Your task to perform on an android device: Open Google Chrome Image 0: 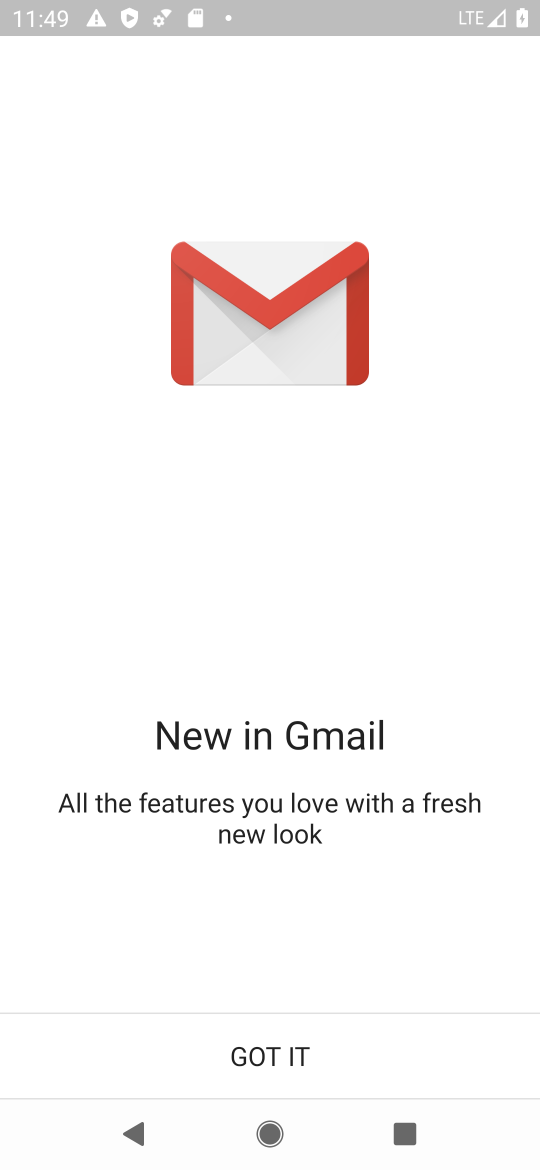
Step 0: press home button
Your task to perform on an android device: Open Google Chrome Image 1: 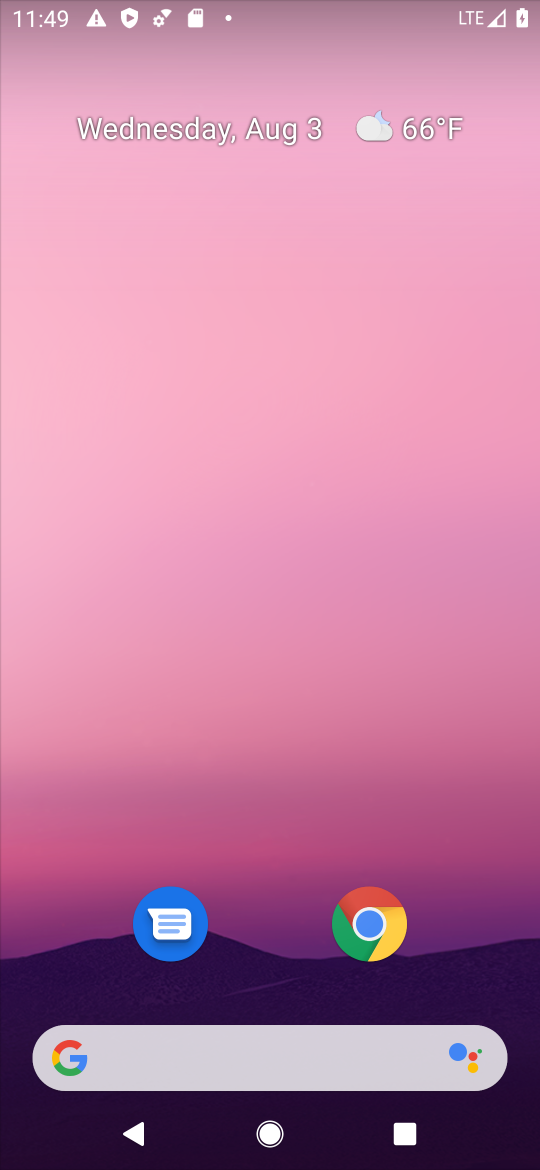
Step 1: click (360, 903)
Your task to perform on an android device: Open Google Chrome Image 2: 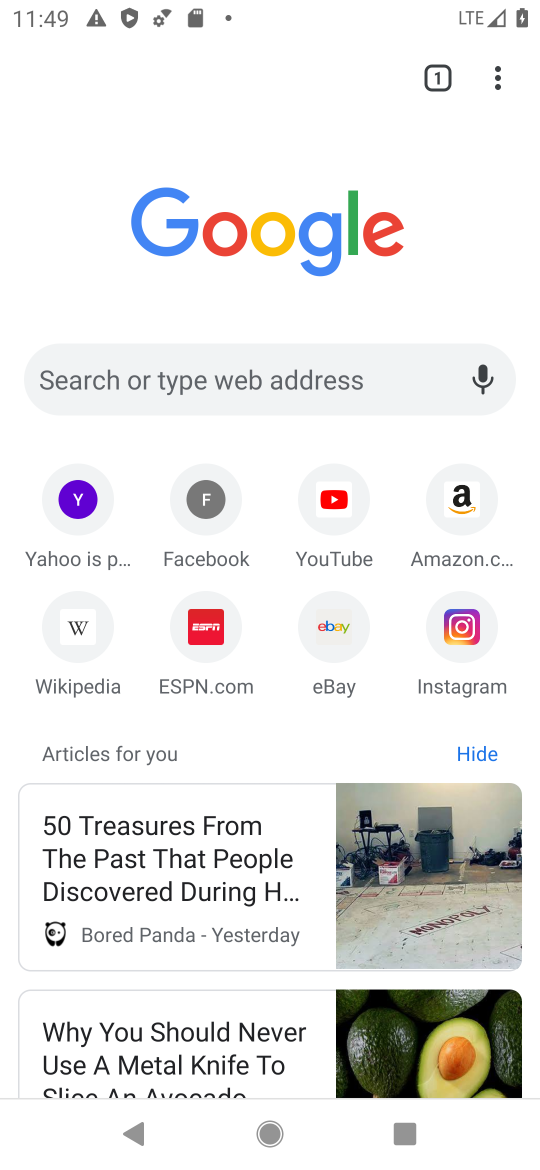
Step 2: task complete